Your task to perform on an android device: Open privacy settings Image 0: 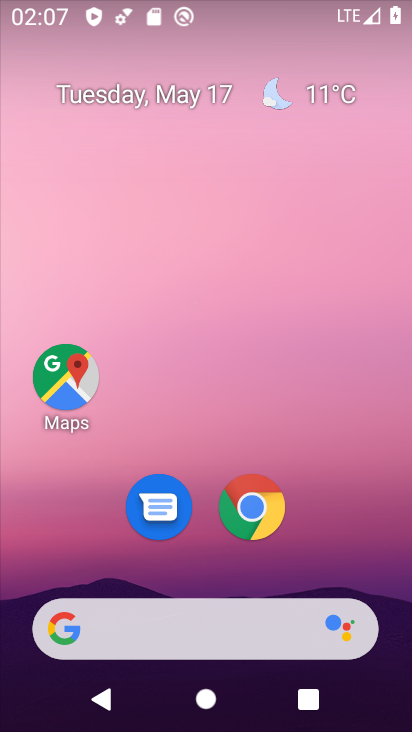
Step 0: click (257, 489)
Your task to perform on an android device: Open privacy settings Image 1: 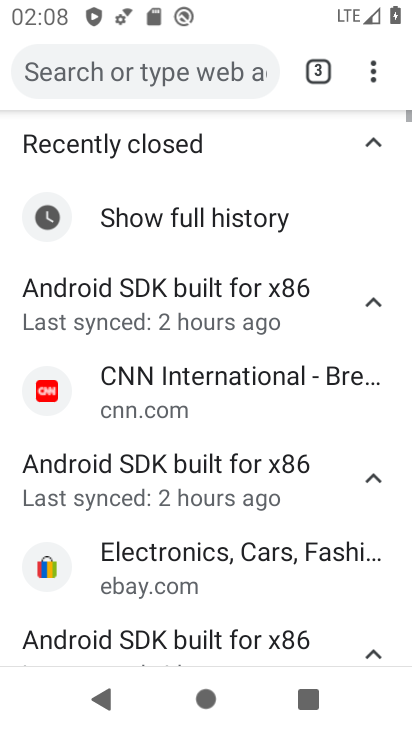
Step 1: click (387, 72)
Your task to perform on an android device: Open privacy settings Image 2: 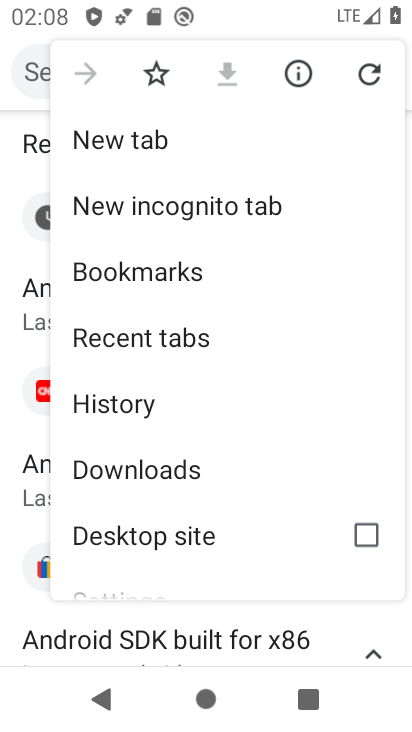
Step 2: drag from (163, 555) to (250, 213)
Your task to perform on an android device: Open privacy settings Image 3: 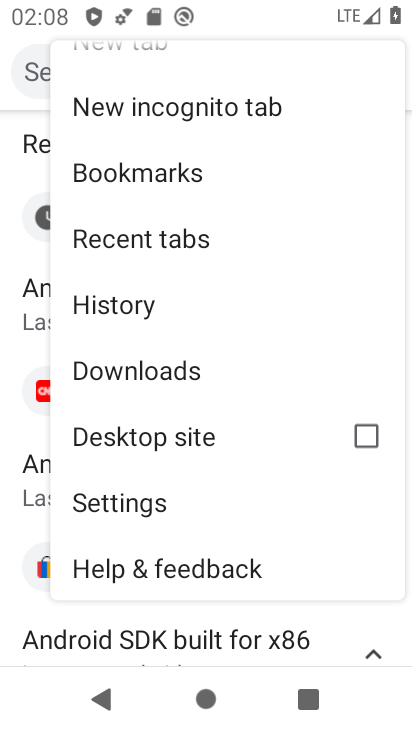
Step 3: click (193, 512)
Your task to perform on an android device: Open privacy settings Image 4: 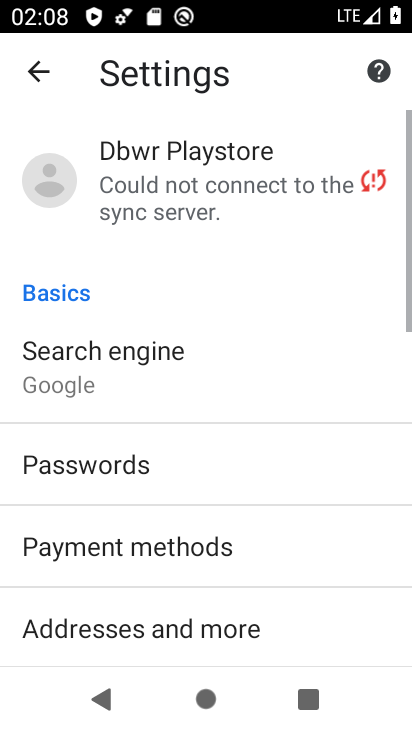
Step 4: drag from (193, 512) to (271, 36)
Your task to perform on an android device: Open privacy settings Image 5: 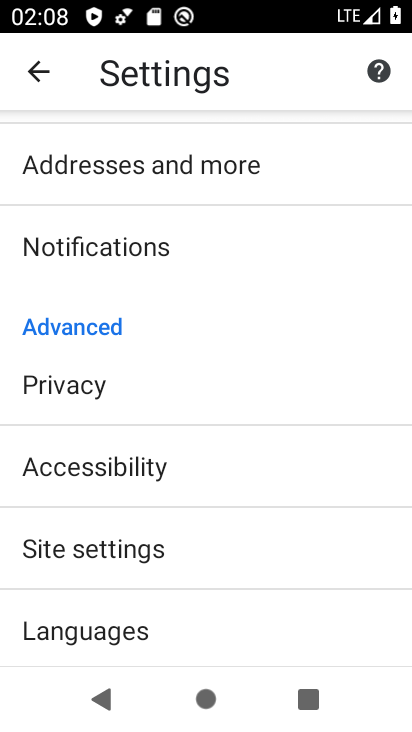
Step 5: drag from (162, 654) to (318, 320)
Your task to perform on an android device: Open privacy settings Image 6: 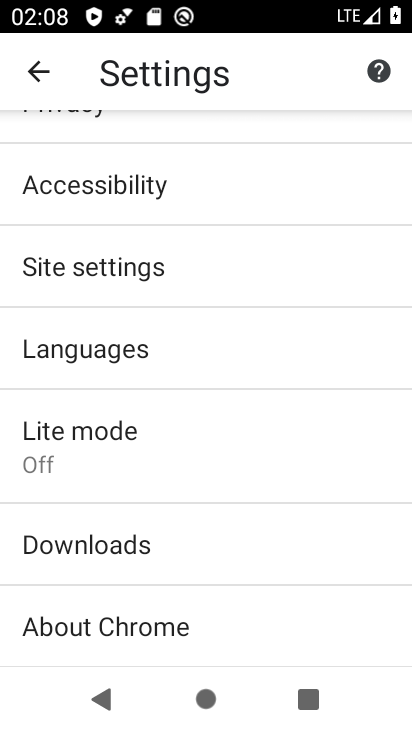
Step 6: drag from (252, 251) to (285, 626)
Your task to perform on an android device: Open privacy settings Image 7: 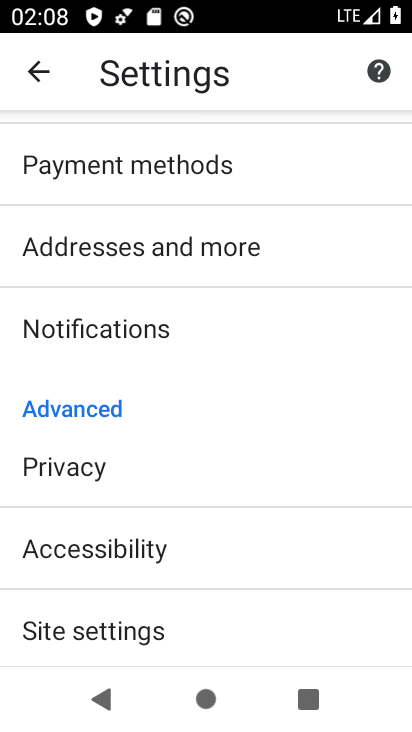
Step 7: click (88, 466)
Your task to perform on an android device: Open privacy settings Image 8: 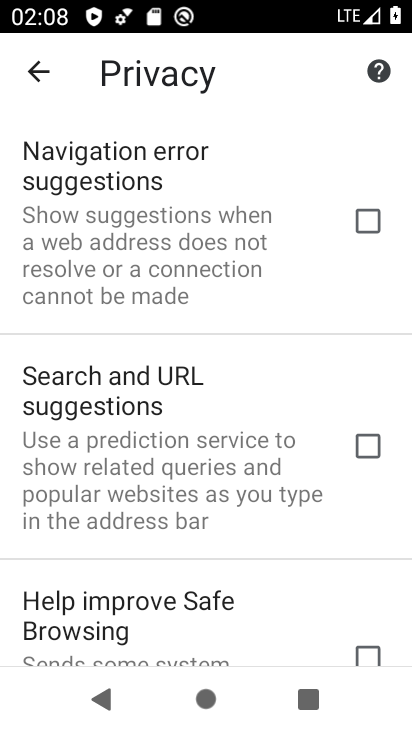
Step 8: task complete